Your task to perform on an android device: turn on showing notifications on the lock screen Image 0: 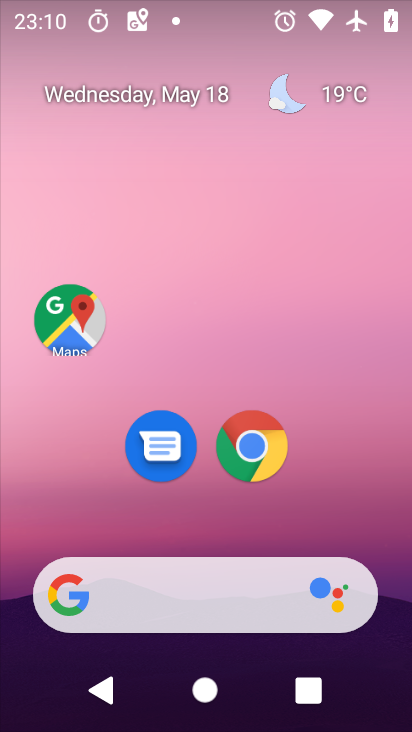
Step 0: drag from (218, 583) to (311, 106)
Your task to perform on an android device: turn on showing notifications on the lock screen Image 1: 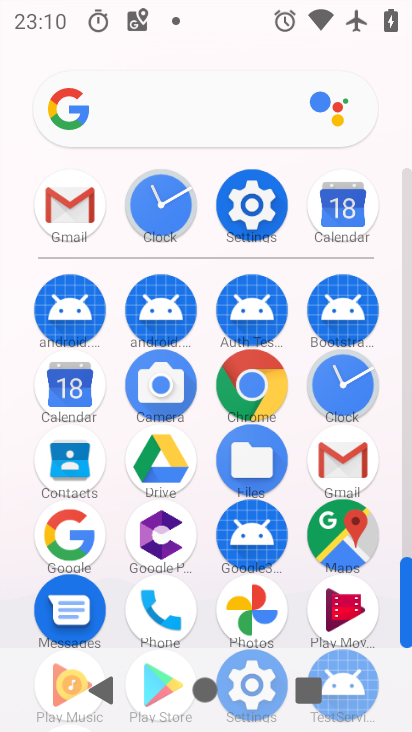
Step 1: click (236, 208)
Your task to perform on an android device: turn on showing notifications on the lock screen Image 2: 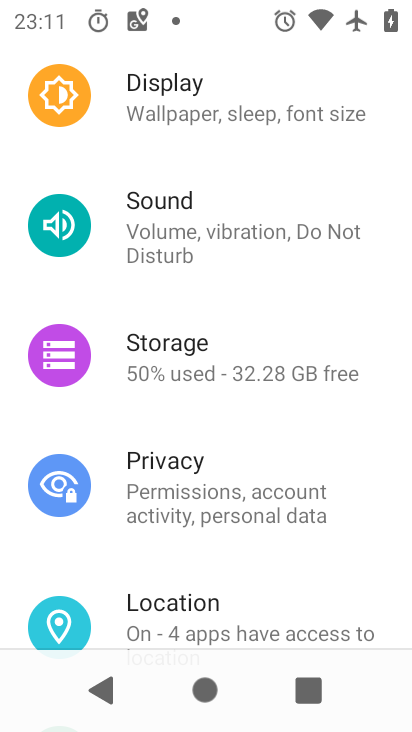
Step 2: drag from (334, 73) to (245, 534)
Your task to perform on an android device: turn on showing notifications on the lock screen Image 3: 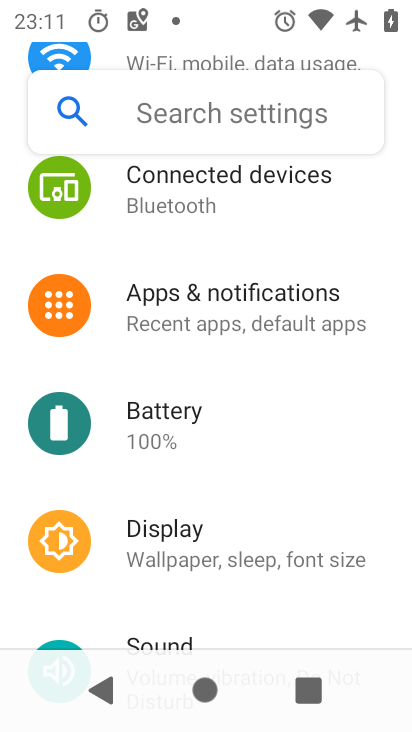
Step 3: click (259, 308)
Your task to perform on an android device: turn on showing notifications on the lock screen Image 4: 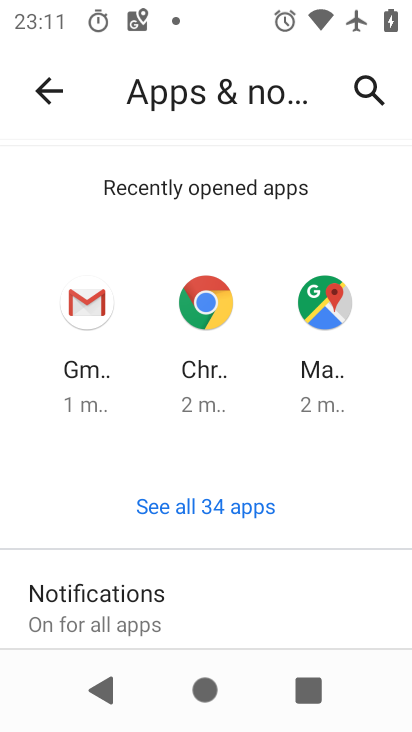
Step 4: click (101, 587)
Your task to perform on an android device: turn on showing notifications on the lock screen Image 5: 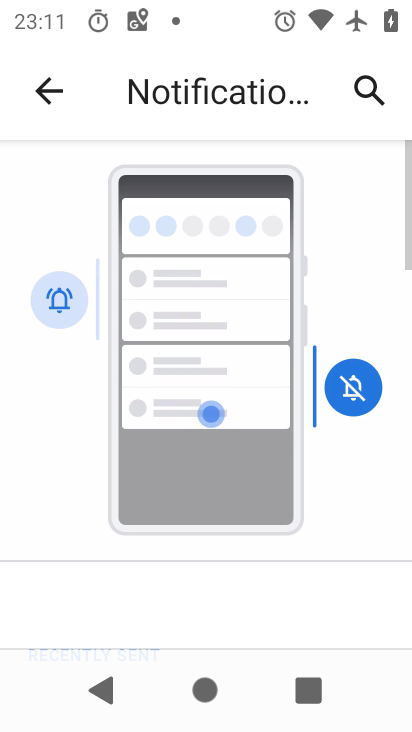
Step 5: drag from (133, 593) to (302, 160)
Your task to perform on an android device: turn on showing notifications on the lock screen Image 6: 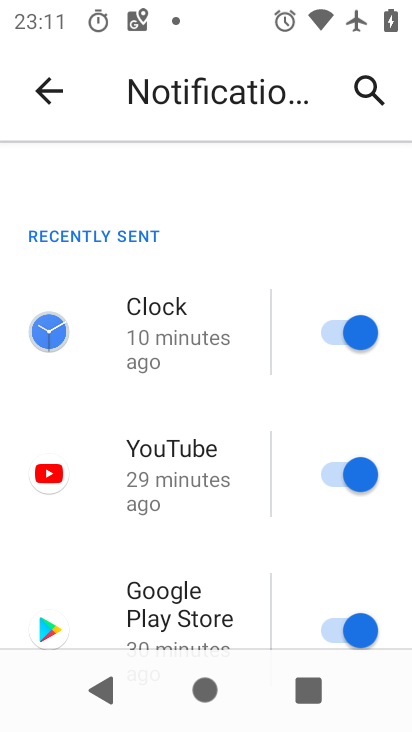
Step 6: drag from (198, 590) to (362, 50)
Your task to perform on an android device: turn on showing notifications on the lock screen Image 7: 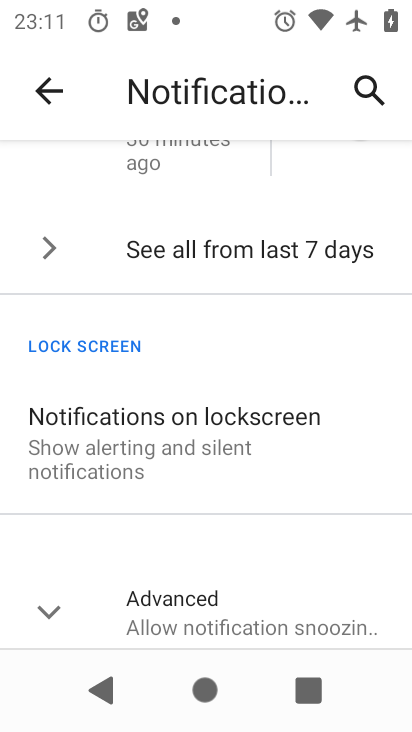
Step 7: click (163, 436)
Your task to perform on an android device: turn on showing notifications on the lock screen Image 8: 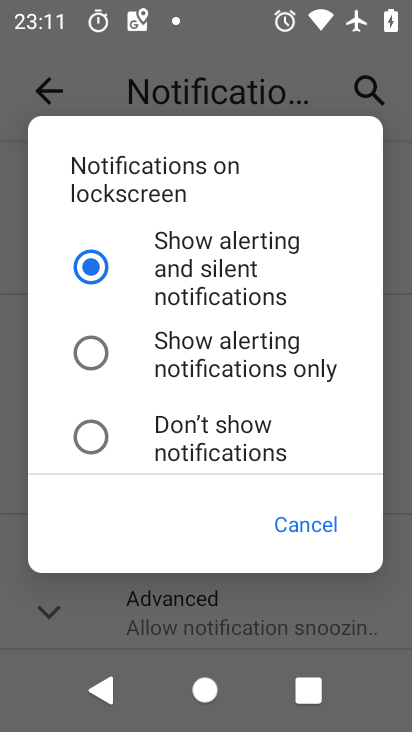
Step 8: task complete